Your task to perform on an android device: open a bookmark in the chrome app Image 0: 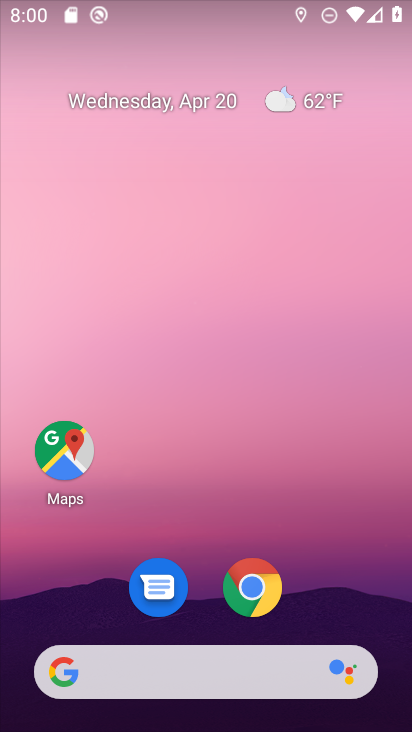
Step 0: click (250, 586)
Your task to perform on an android device: open a bookmark in the chrome app Image 1: 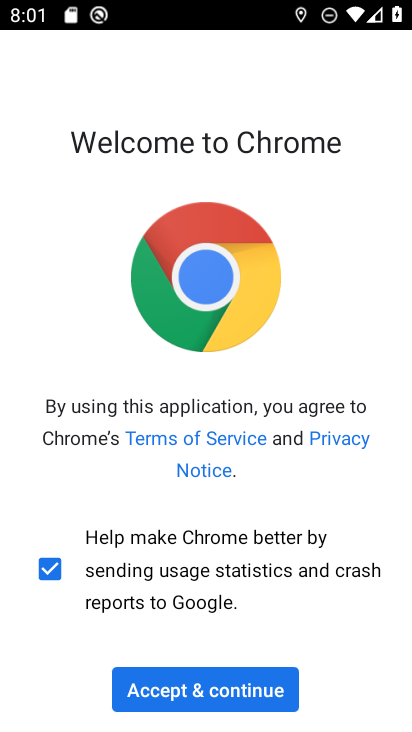
Step 1: click (209, 678)
Your task to perform on an android device: open a bookmark in the chrome app Image 2: 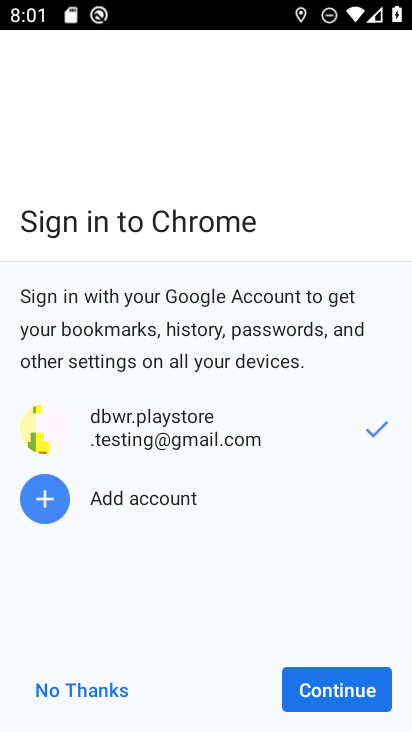
Step 2: click (298, 688)
Your task to perform on an android device: open a bookmark in the chrome app Image 3: 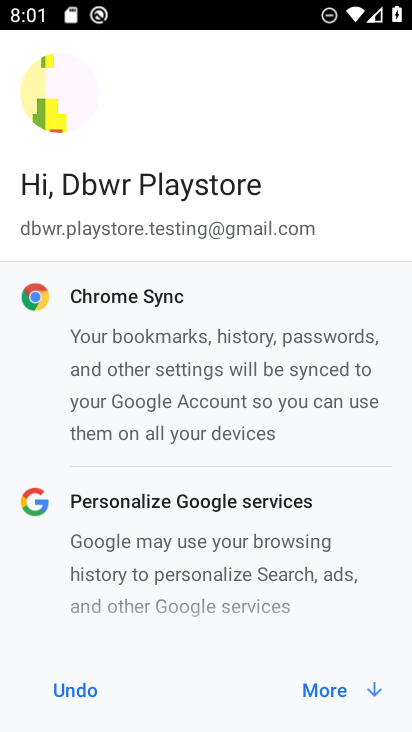
Step 3: click (323, 684)
Your task to perform on an android device: open a bookmark in the chrome app Image 4: 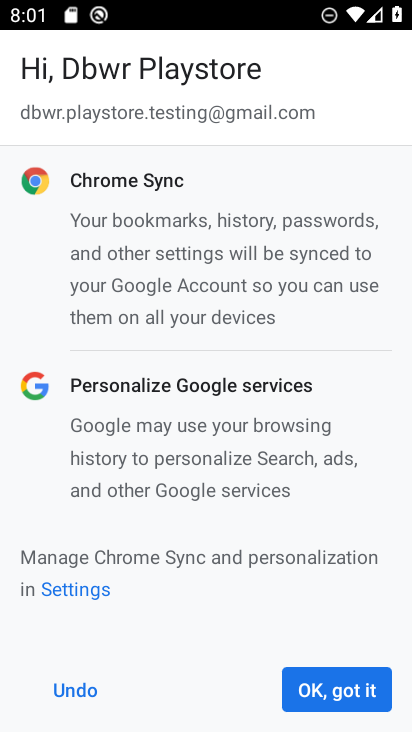
Step 4: click (324, 683)
Your task to perform on an android device: open a bookmark in the chrome app Image 5: 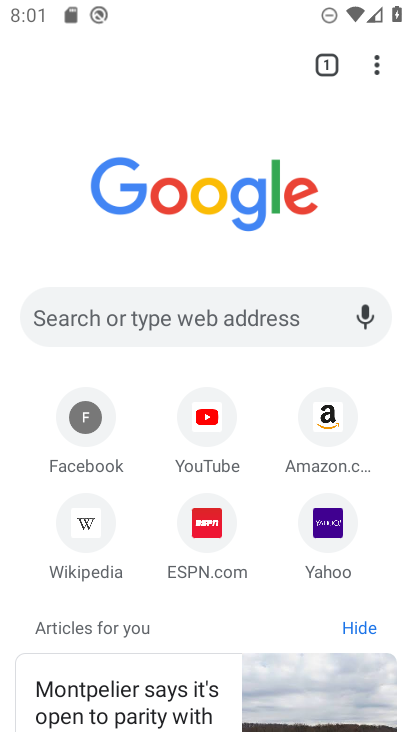
Step 5: click (378, 62)
Your task to perform on an android device: open a bookmark in the chrome app Image 6: 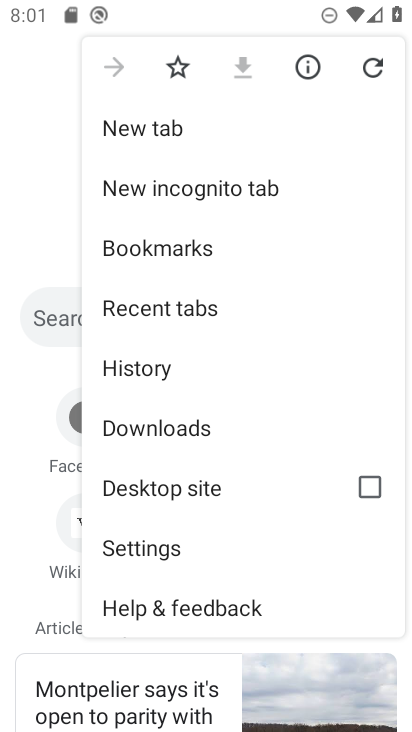
Step 6: click (165, 249)
Your task to perform on an android device: open a bookmark in the chrome app Image 7: 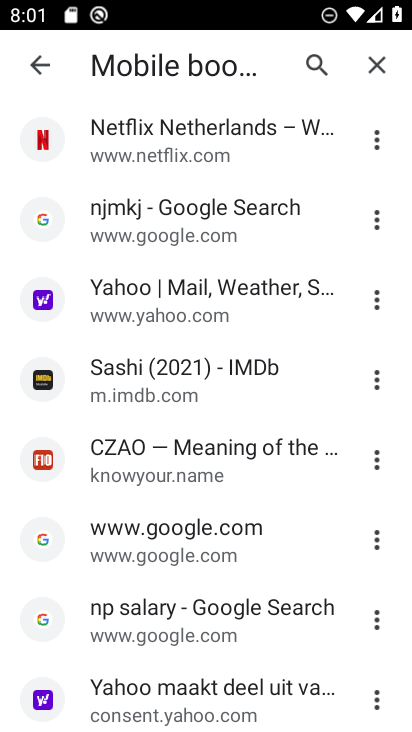
Step 7: click (144, 361)
Your task to perform on an android device: open a bookmark in the chrome app Image 8: 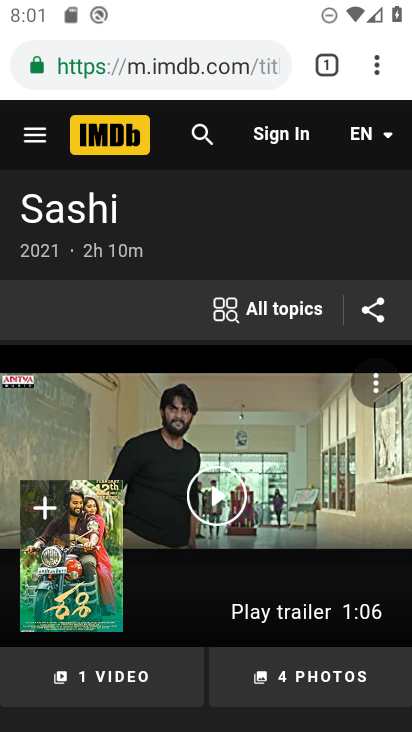
Step 8: task complete